Your task to perform on an android device: toggle translation in the chrome app Image 0: 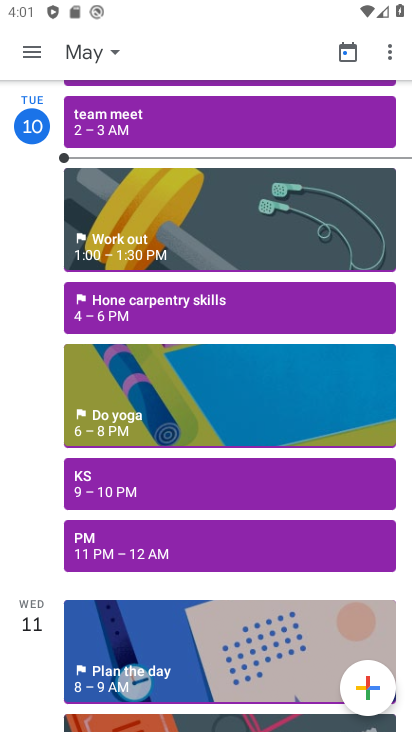
Step 0: press back button
Your task to perform on an android device: toggle translation in the chrome app Image 1: 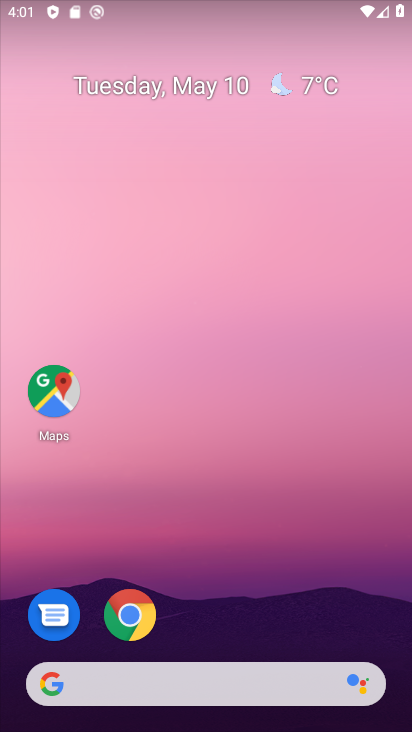
Step 1: drag from (214, 463) to (196, 48)
Your task to perform on an android device: toggle translation in the chrome app Image 2: 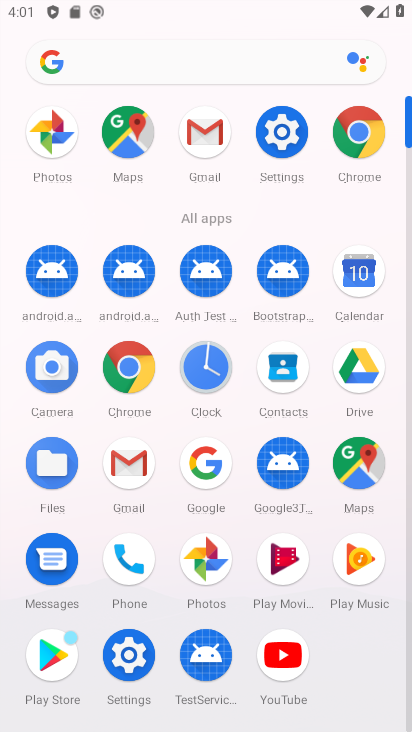
Step 2: click (123, 359)
Your task to perform on an android device: toggle translation in the chrome app Image 3: 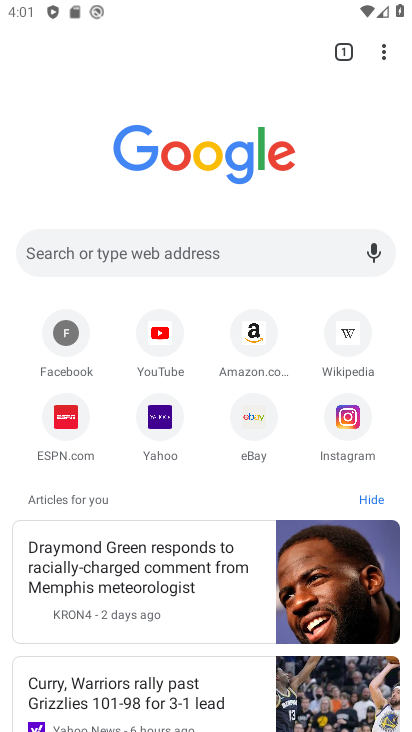
Step 3: drag from (384, 52) to (214, 489)
Your task to perform on an android device: toggle translation in the chrome app Image 4: 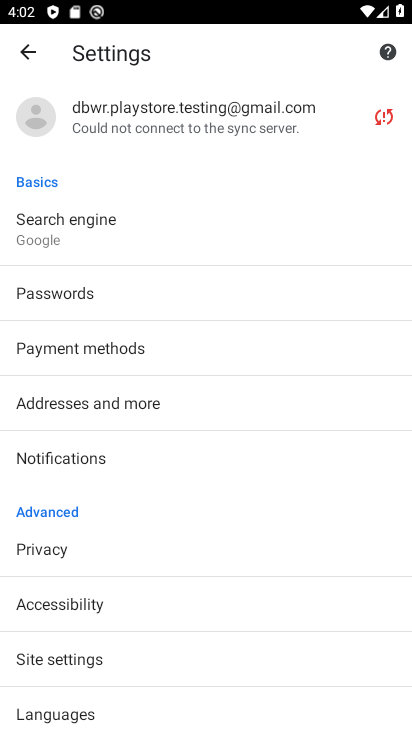
Step 4: drag from (203, 585) to (202, 185)
Your task to perform on an android device: toggle translation in the chrome app Image 5: 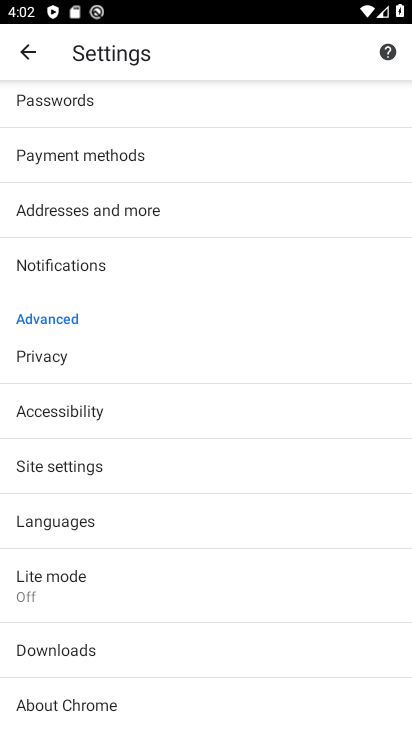
Step 5: click (72, 511)
Your task to perform on an android device: toggle translation in the chrome app Image 6: 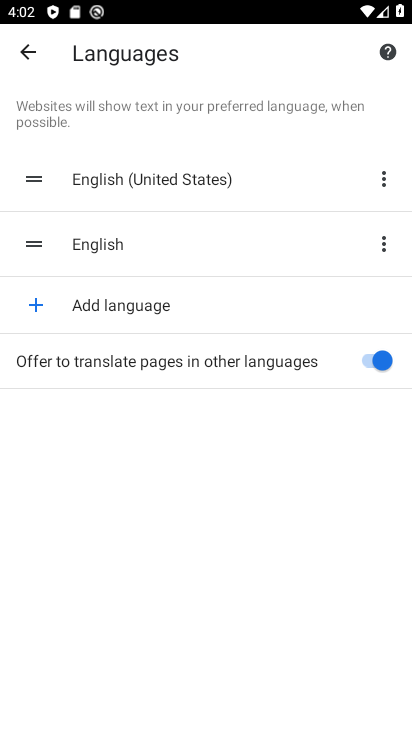
Step 6: click (355, 363)
Your task to perform on an android device: toggle translation in the chrome app Image 7: 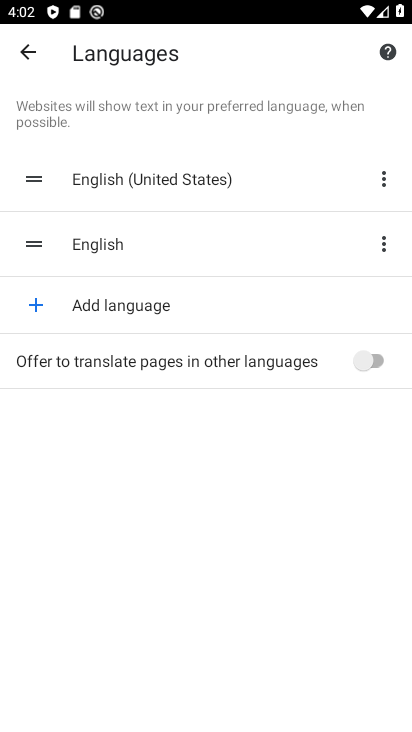
Step 7: task complete